Your task to perform on an android device: Open Google Chrome and click the shortcut for Amazon.com Image 0: 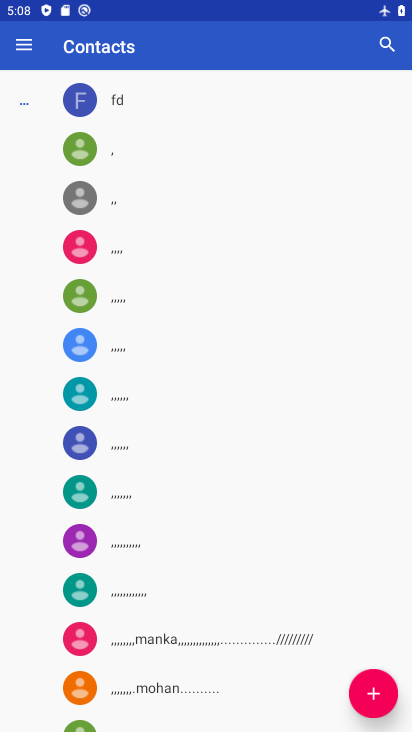
Step 0: press home button
Your task to perform on an android device: Open Google Chrome and click the shortcut for Amazon.com Image 1: 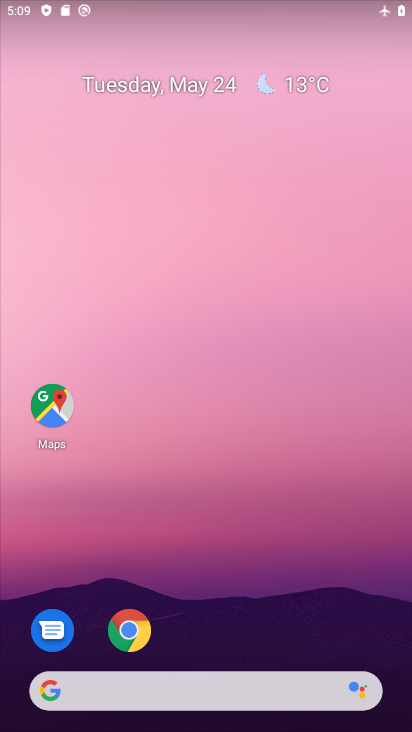
Step 1: click (132, 635)
Your task to perform on an android device: Open Google Chrome and click the shortcut for Amazon.com Image 2: 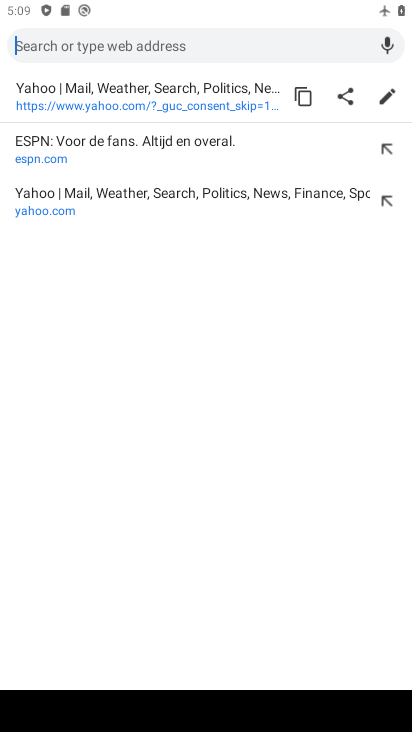
Step 2: press back button
Your task to perform on an android device: Open Google Chrome and click the shortcut for Amazon.com Image 3: 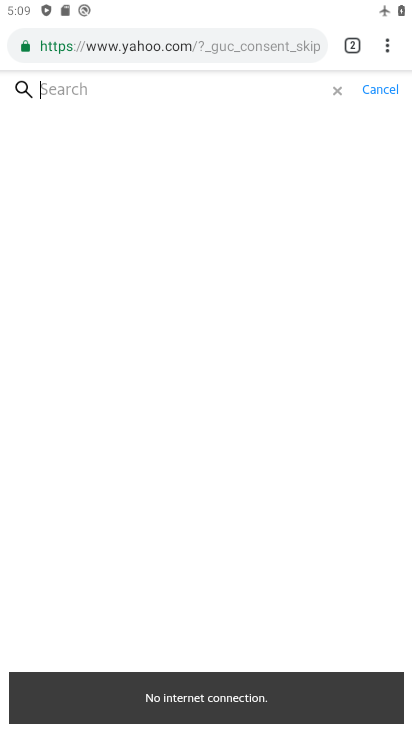
Step 3: press back button
Your task to perform on an android device: Open Google Chrome and click the shortcut for Amazon.com Image 4: 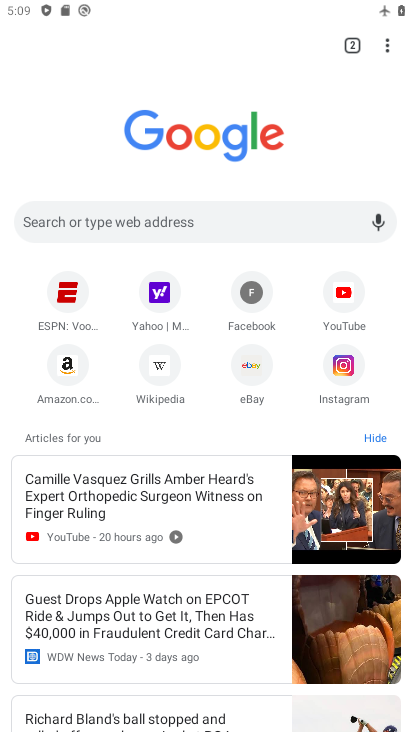
Step 4: click (70, 376)
Your task to perform on an android device: Open Google Chrome and click the shortcut for Amazon.com Image 5: 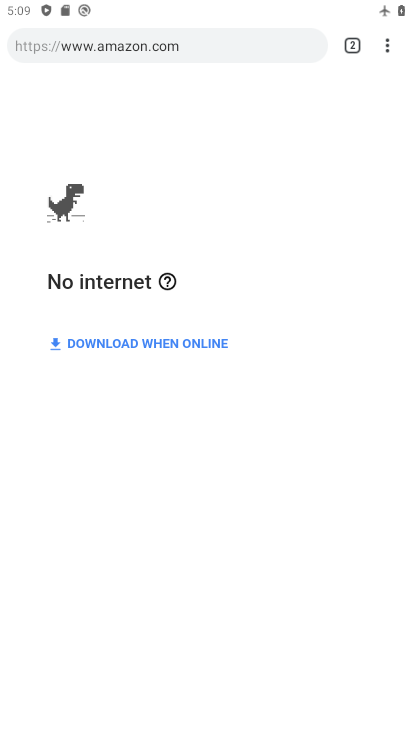
Step 5: task complete